Your task to perform on an android device: find which apps use the phone's location Image 0: 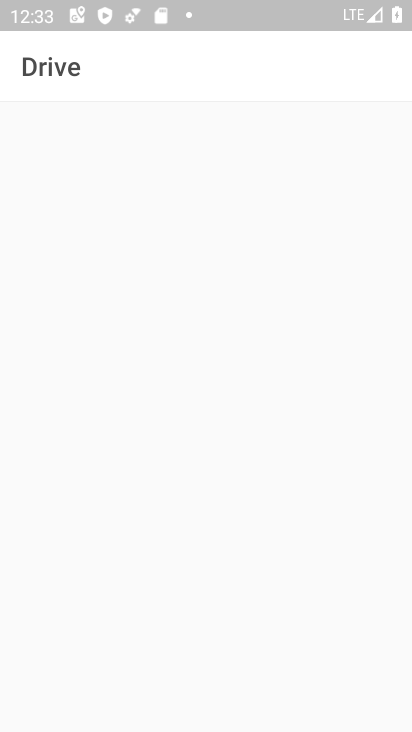
Step 0: press home button
Your task to perform on an android device: find which apps use the phone's location Image 1: 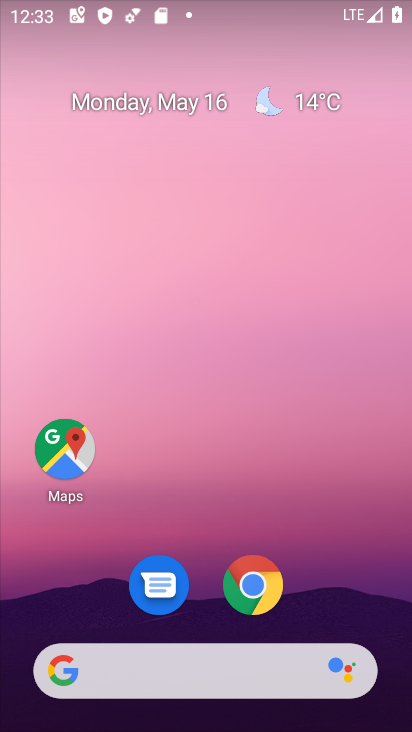
Step 1: drag from (253, 515) to (275, 30)
Your task to perform on an android device: find which apps use the phone's location Image 2: 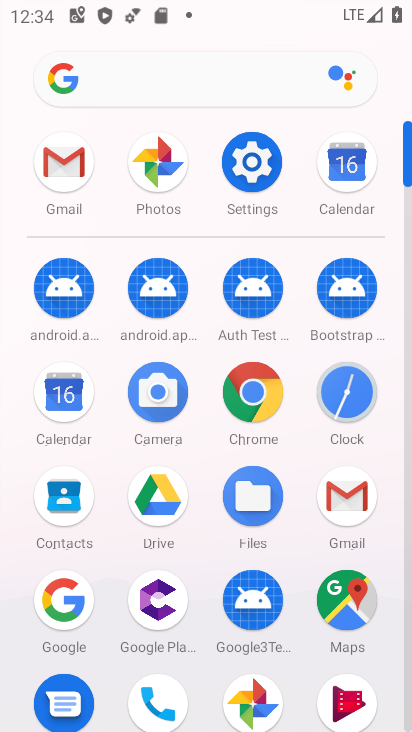
Step 2: click (272, 160)
Your task to perform on an android device: find which apps use the phone's location Image 3: 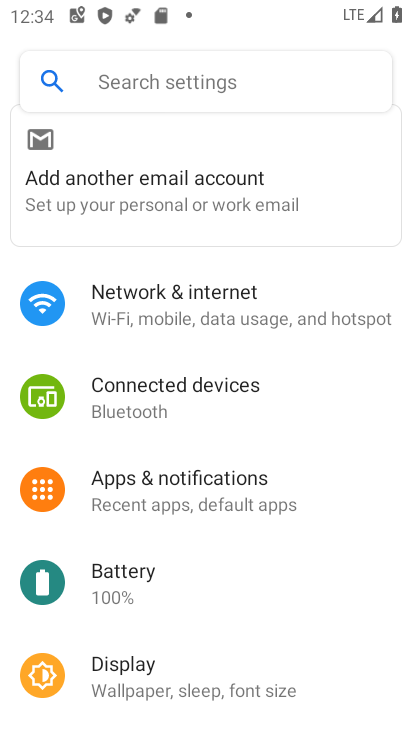
Step 3: drag from (216, 586) to (257, 131)
Your task to perform on an android device: find which apps use the phone's location Image 4: 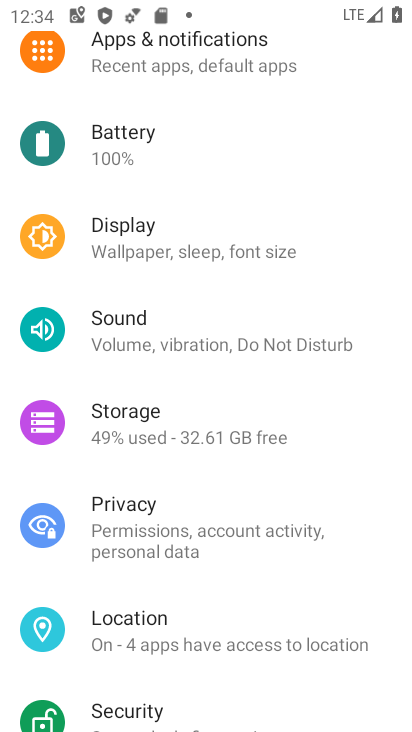
Step 4: click (206, 637)
Your task to perform on an android device: find which apps use the phone's location Image 5: 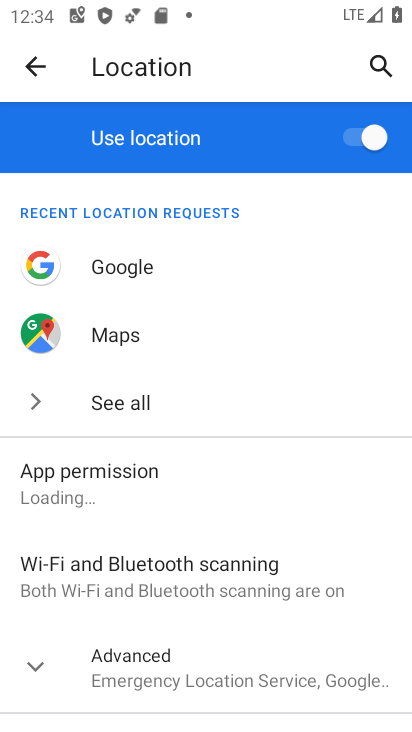
Step 5: click (189, 468)
Your task to perform on an android device: find which apps use the phone's location Image 6: 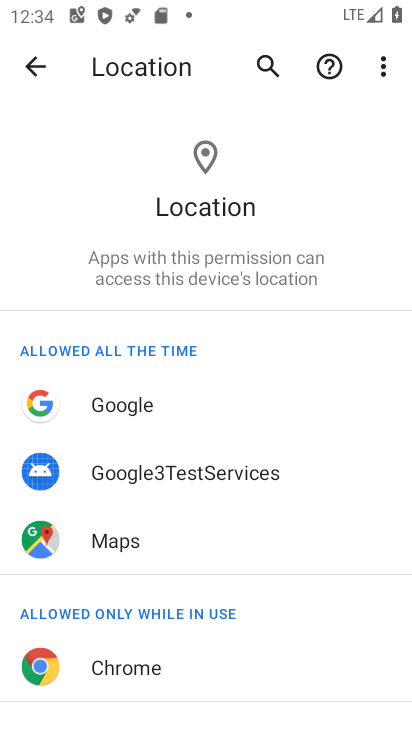
Step 6: task complete